Your task to perform on an android device: toggle data saver in the chrome app Image 0: 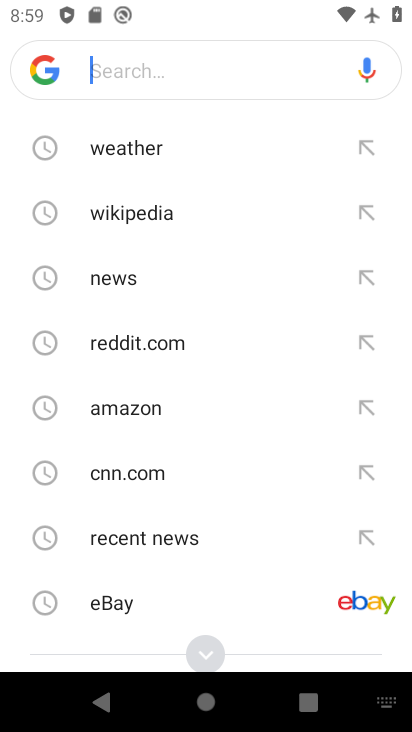
Step 0: press home button
Your task to perform on an android device: toggle data saver in the chrome app Image 1: 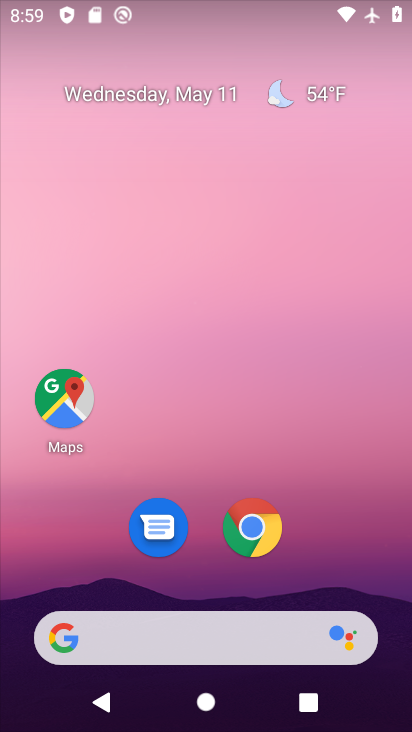
Step 1: drag from (266, 545) to (317, 545)
Your task to perform on an android device: toggle data saver in the chrome app Image 2: 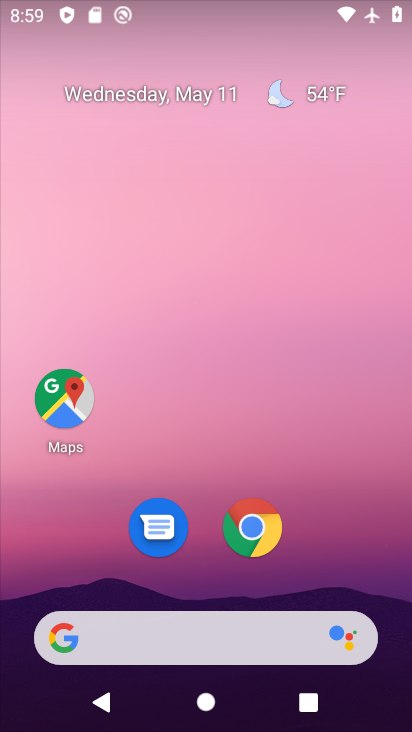
Step 2: click (247, 537)
Your task to perform on an android device: toggle data saver in the chrome app Image 3: 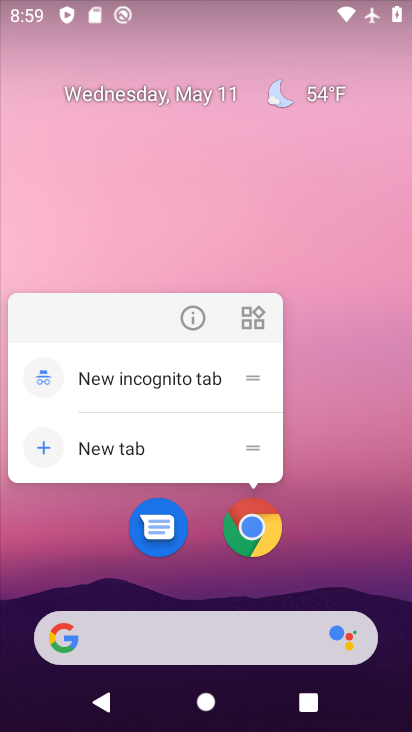
Step 3: click (252, 549)
Your task to perform on an android device: toggle data saver in the chrome app Image 4: 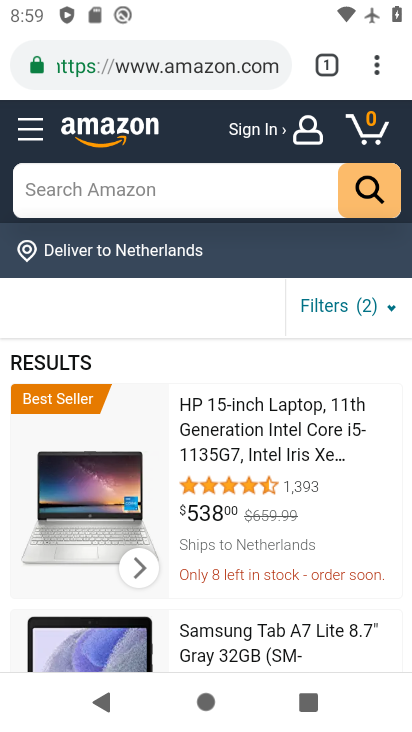
Step 4: drag from (379, 73) to (192, 572)
Your task to perform on an android device: toggle data saver in the chrome app Image 5: 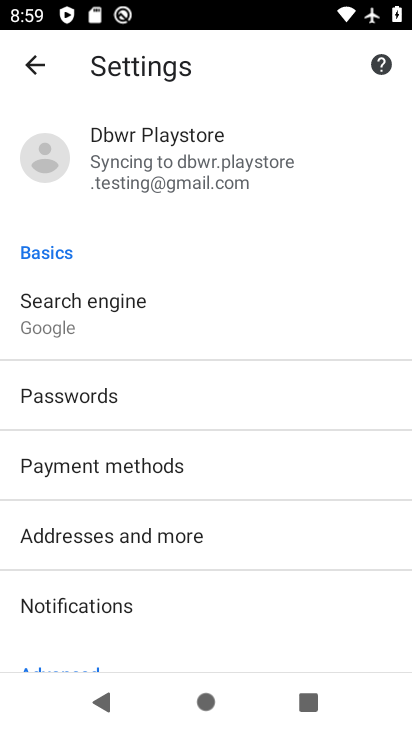
Step 5: drag from (204, 610) to (206, 197)
Your task to perform on an android device: toggle data saver in the chrome app Image 6: 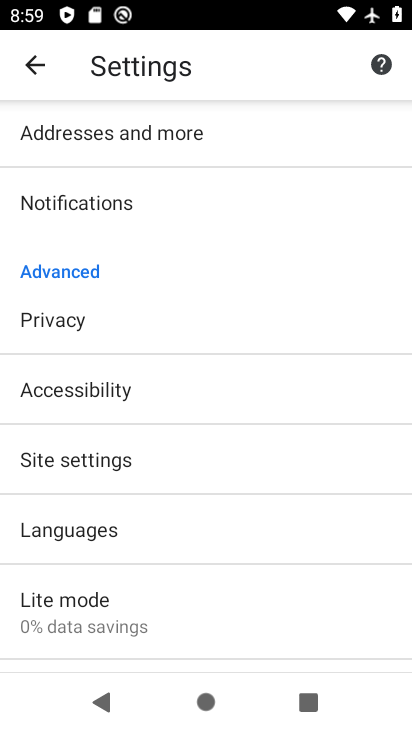
Step 6: click (167, 614)
Your task to perform on an android device: toggle data saver in the chrome app Image 7: 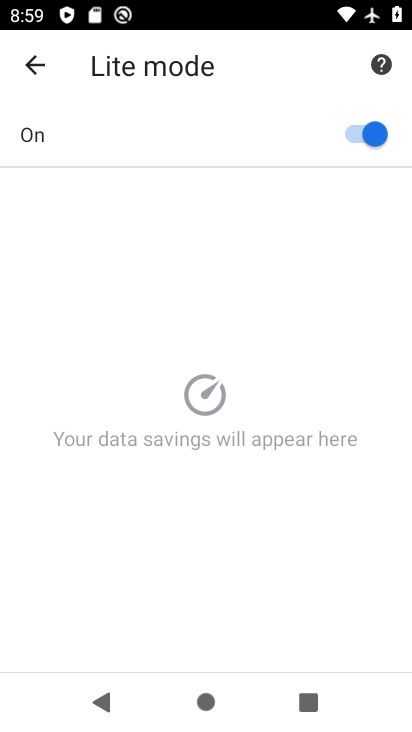
Step 7: click (374, 134)
Your task to perform on an android device: toggle data saver in the chrome app Image 8: 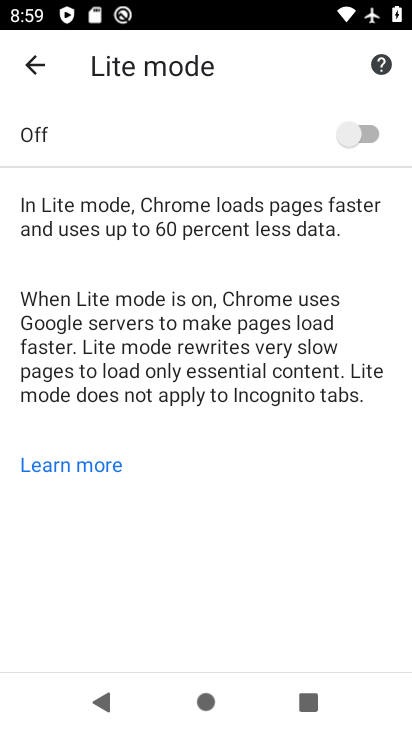
Step 8: task complete